Your task to perform on an android device: Open the calendar and show me this week's events? Image 0: 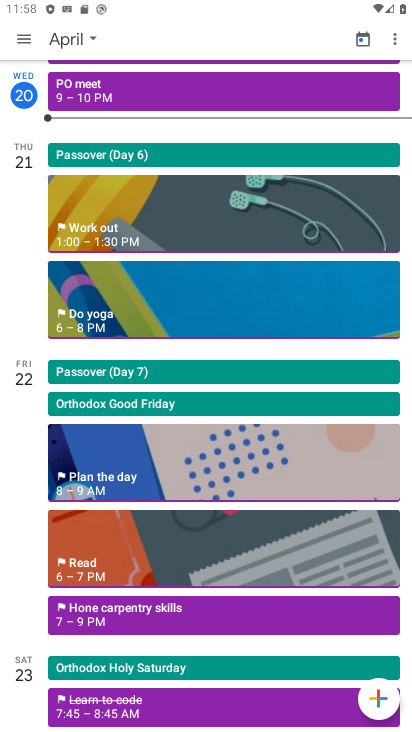
Step 0: press home button
Your task to perform on an android device: Open the calendar and show me this week's events? Image 1: 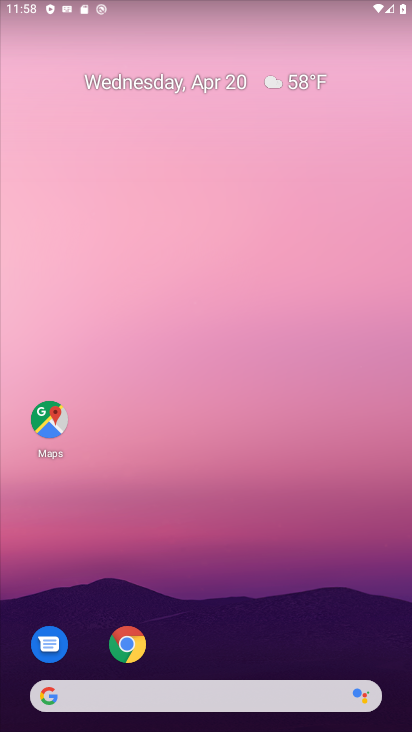
Step 1: drag from (187, 633) to (213, 152)
Your task to perform on an android device: Open the calendar and show me this week's events? Image 2: 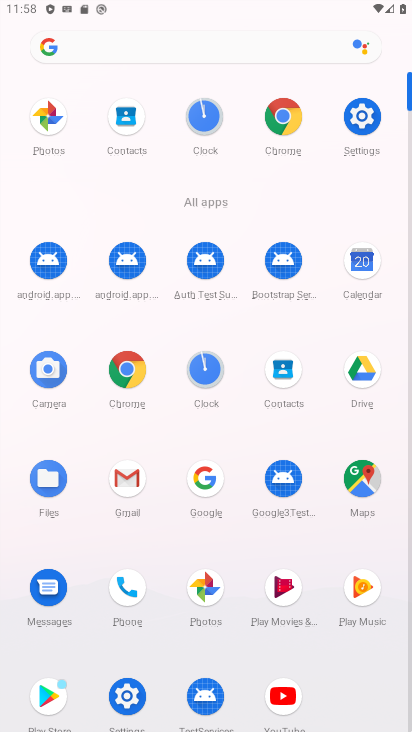
Step 2: click (363, 273)
Your task to perform on an android device: Open the calendar and show me this week's events? Image 3: 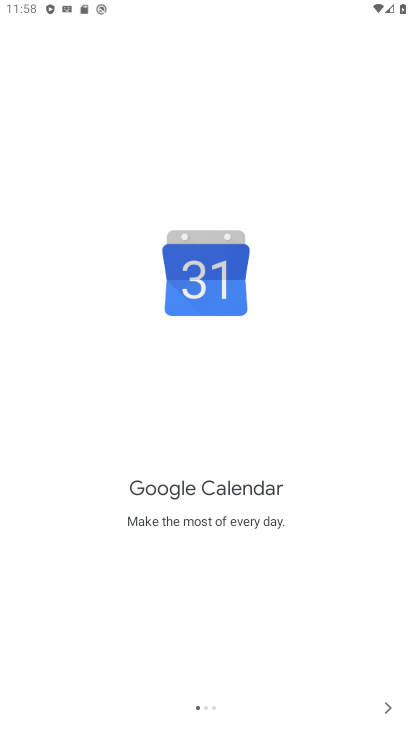
Step 3: click (392, 709)
Your task to perform on an android device: Open the calendar and show me this week's events? Image 4: 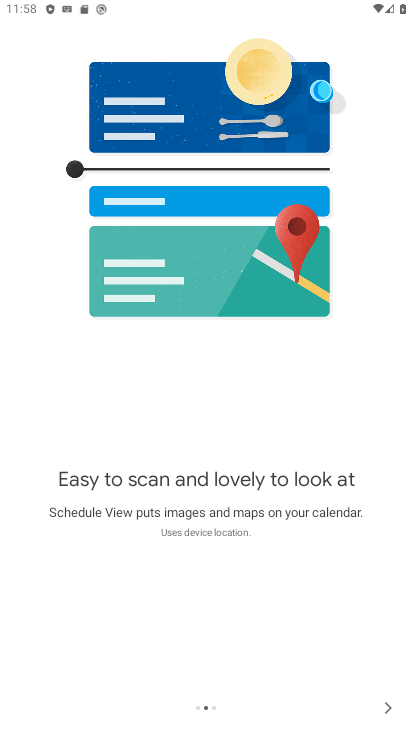
Step 4: click (393, 708)
Your task to perform on an android device: Open the calendar and show me this week's events? Image 5: 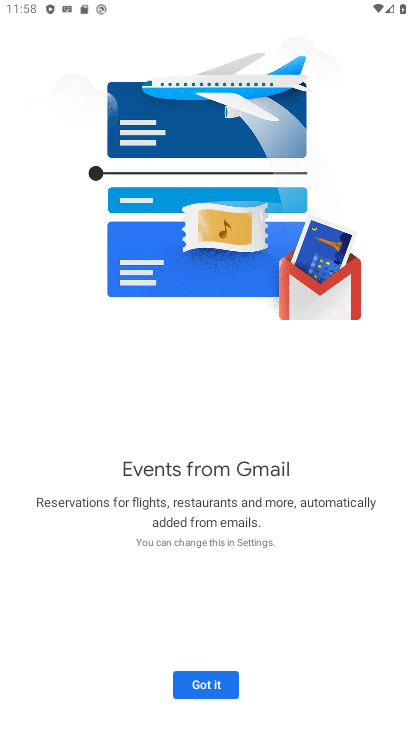
Step 5: click (390, 705)
Your task to perform on an android device: Open the calendar and show me this week's events? Image 6: 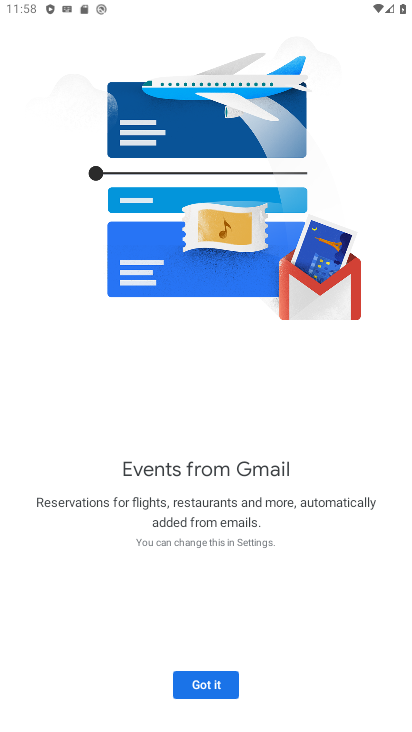
Step 6: click (218, 690)
Your task to perform on an android device: Open the calendar and show me this week's events? Image 7: 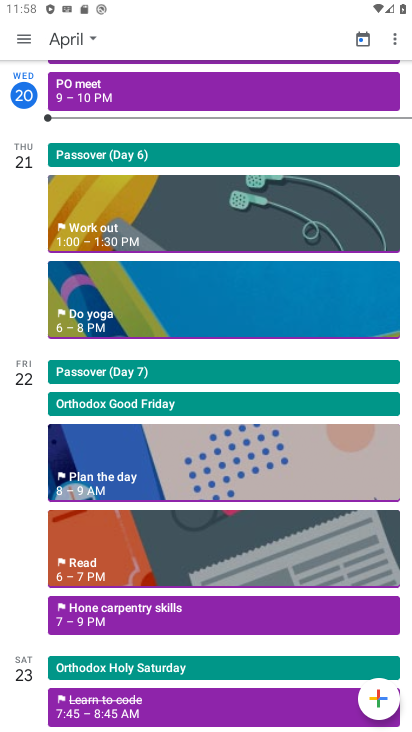
Step 7: click (66, 44)
Your task to perform on an android device: Open the calendar and show me this week's events? Image 8: 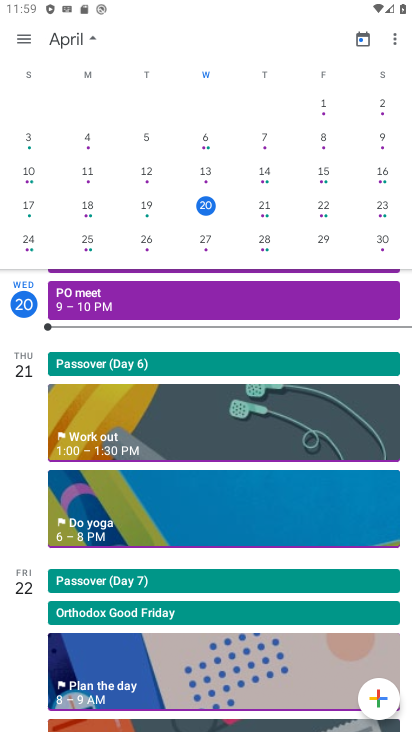
Step 8: click (380, 210)
Your task to perform on an android device: Open the calendar and show me this week's events? Image 9: 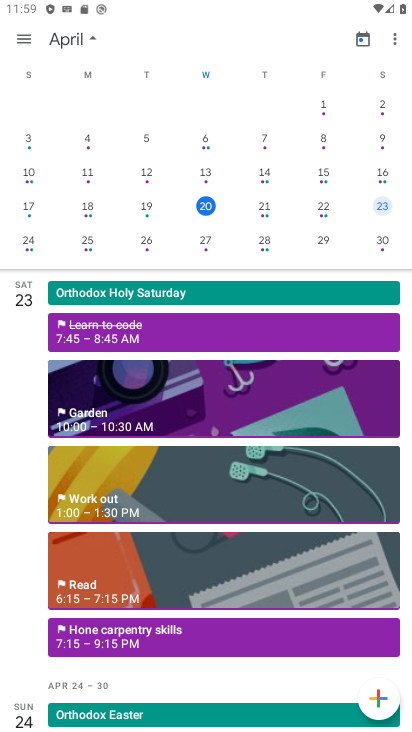
Step 9: click (30, 247)
Your task to perform on an android device: Open the calendar and show me this week's events? Image 10: 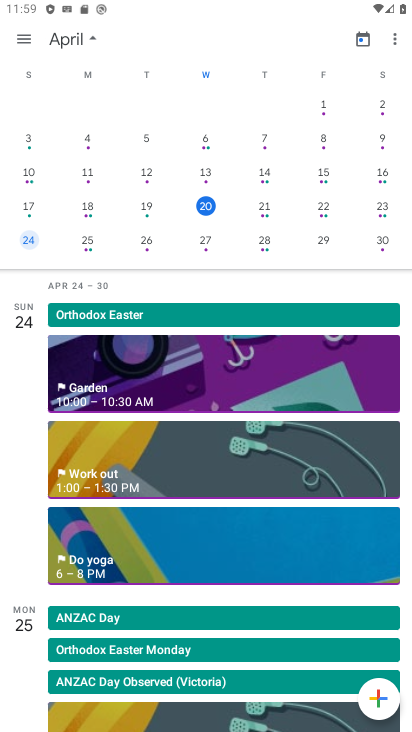
Step 10: task complete